Your task to perform on an android device: delete location history Image 0: 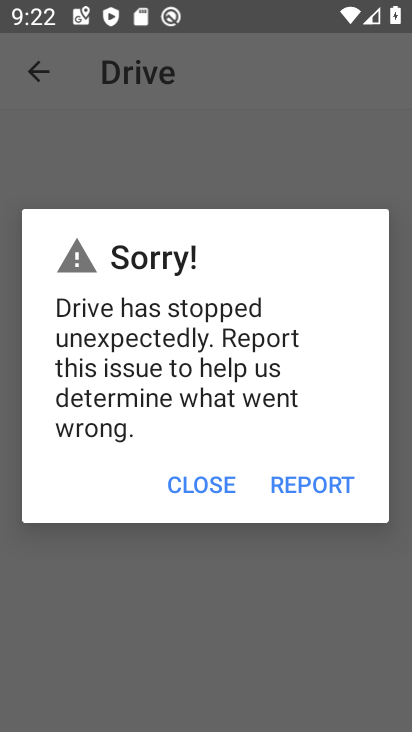
Step 0: press home button
Your task to perform on an android device: delete location history Image 1: 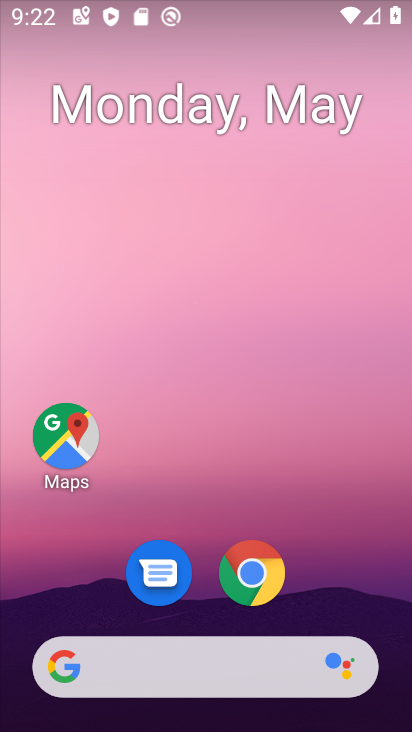
Step 1: drag from (383, 577) to (164, 39)
Your task to perform on an android device: delete location history Image 2: 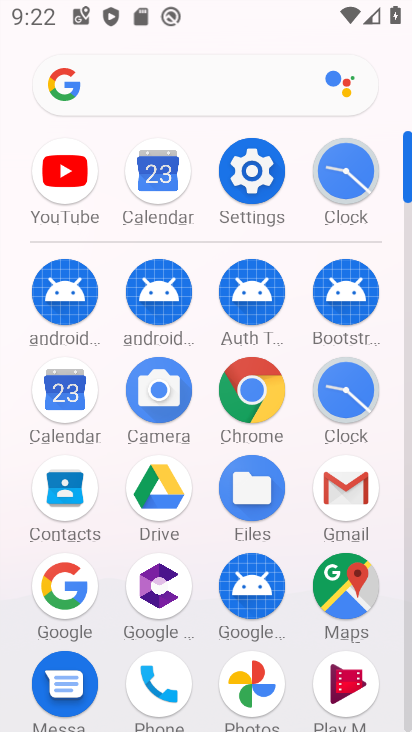
Step 2: click (253, 203)
Your task to perform on an android device: delete location history Image 3: 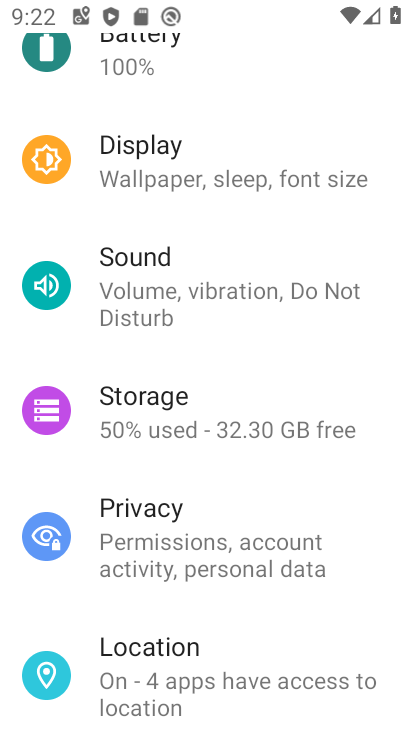
Step 3: click (214, 673)
Your task to perform on an android device: delete location history Image 4: 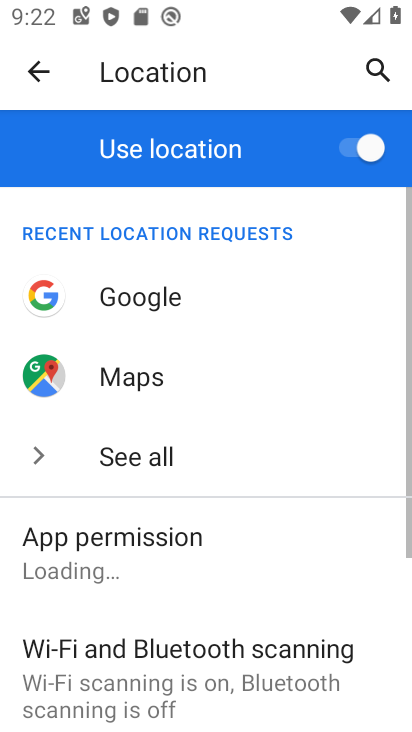
Step 4: drag from (233, 609) to (228, 100)
Your task to perform on an android device: delete location history Image 5: 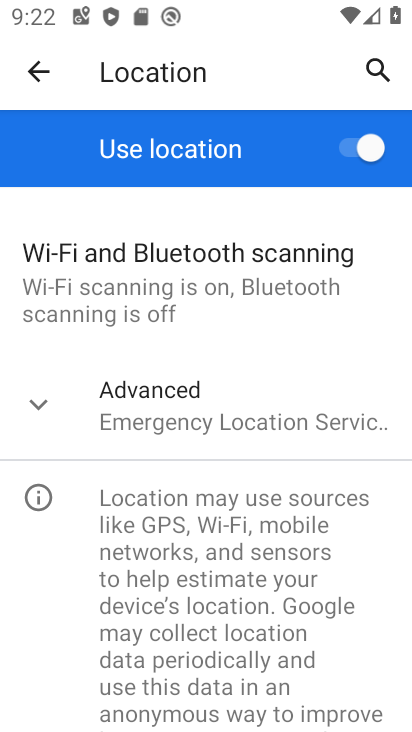
Step 5: click (250, 429)
Your task to perform on an android device: delete location history Image 6: 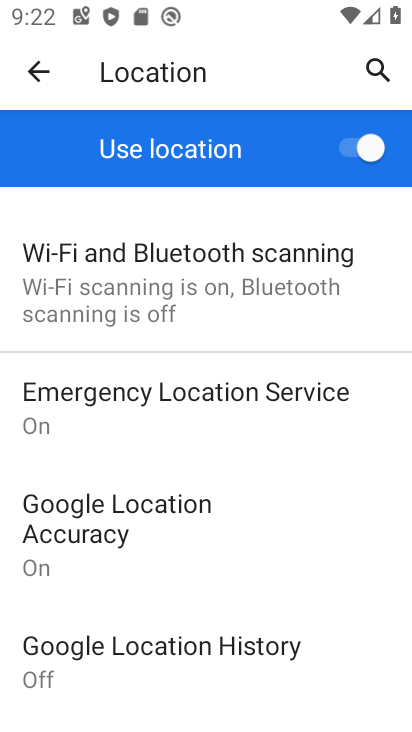
Step 6: click (261, 630)
Your task to perform on an android device: delete location history Image 7: 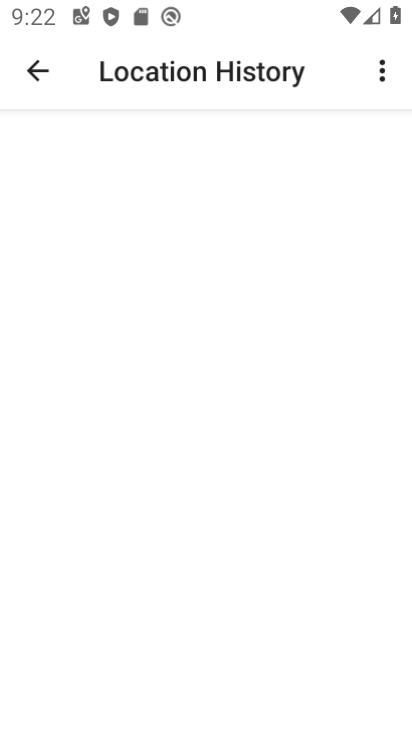
Step 7: task complete